Your task to perform on an android device: Show me recent news Image 0: 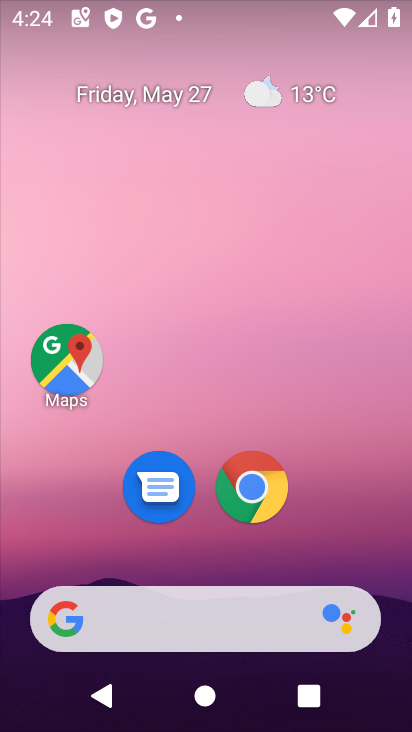
Step 0: click (251, 499)
Your task to perform on an android device: Show me recent news Image 1: 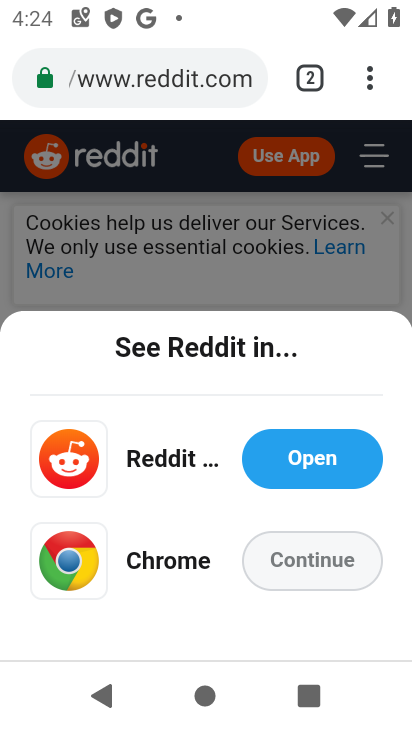
Step 1: click (187, 90)
Your task to perform on an android device: Show me recent news Image 2: 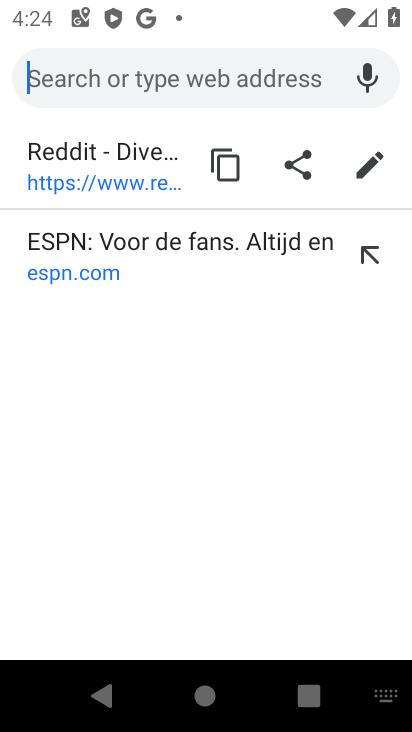
Step 2: type "news"
Your task to perform on an android device: Show me recent news Image 3: 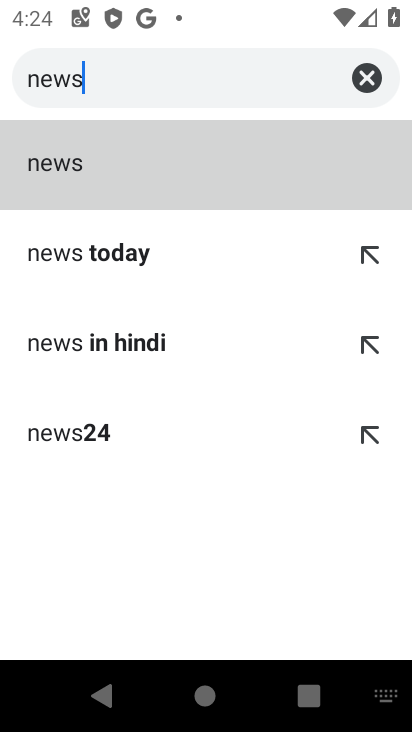
Step 3: click (51, 158)
Your task to perform on an android device: Show me recent news Image 4: 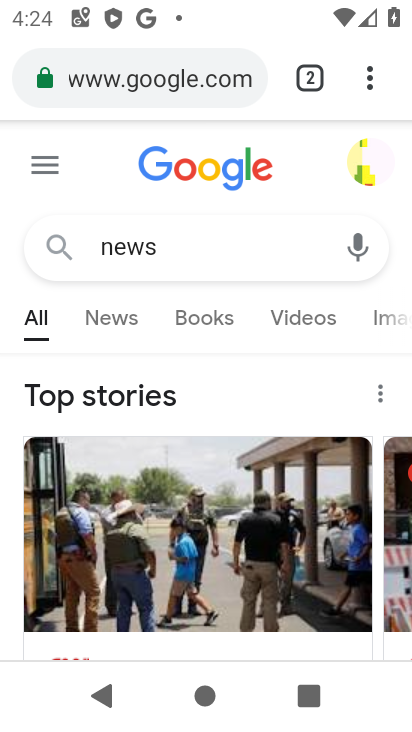
Step 4: click (120, 318)
Your task to perform on an android device: Show me recent news Image 5: 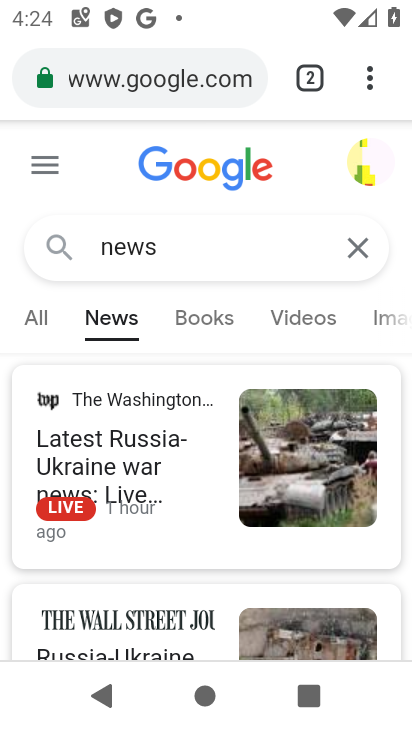
Step 5: task complete